Your task to perform on an android device: change the clock display to digital Image 0: 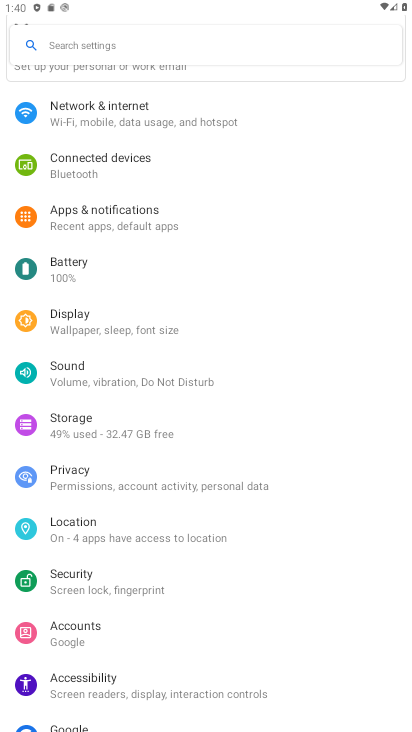
Step 0: task complete